Your task to perform on an android device: Show me productivity apps on the Play Store Image 0: 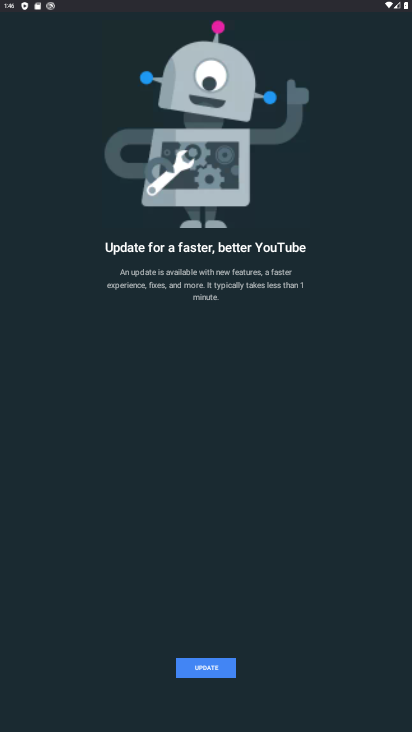
Step 0: press home button
Your task to perform on an android device: Show me productivity apps on the Play Store Image 1: 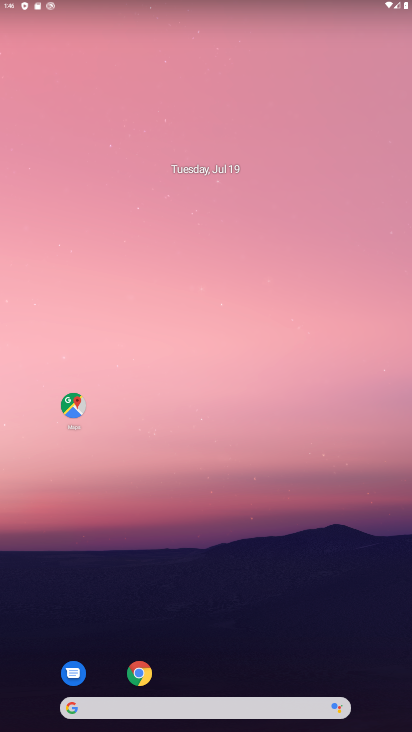
Step 1: drag from (214, 711) to (272, 187)
Your task to perform on an android device: Show me productivity apps on the Play Store Image 2: 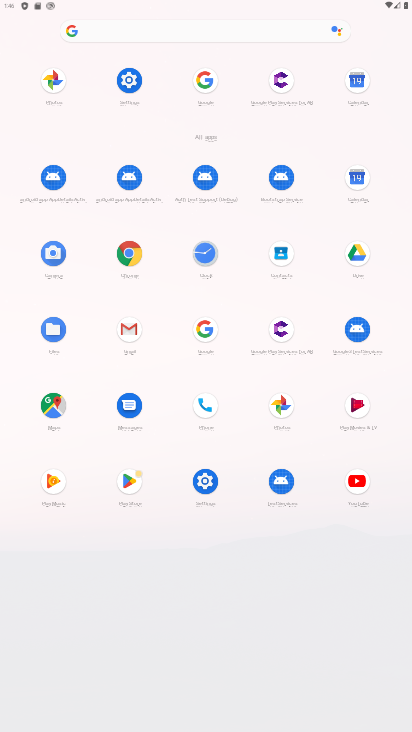
Step 2: click (132, 482)
Your task to perform on an android device: Show me productivity apps on the Play Store Image 3: 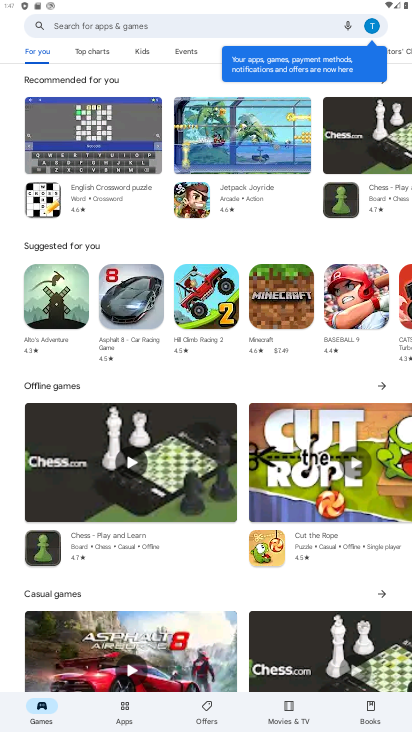
Step 3: click (124, 707)
Your task to perform on an android device: Show me productivity apps on the Play Store Image 4: 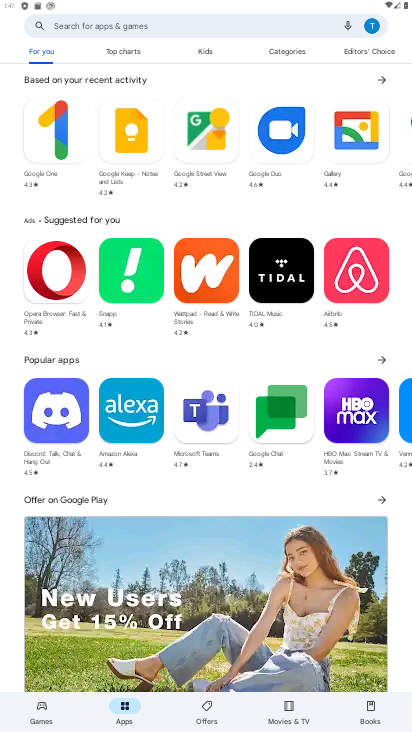
Step 4: click (285, 51)
Your task to perform on an android device: Show me productivity apps on the Play Store Image 5: 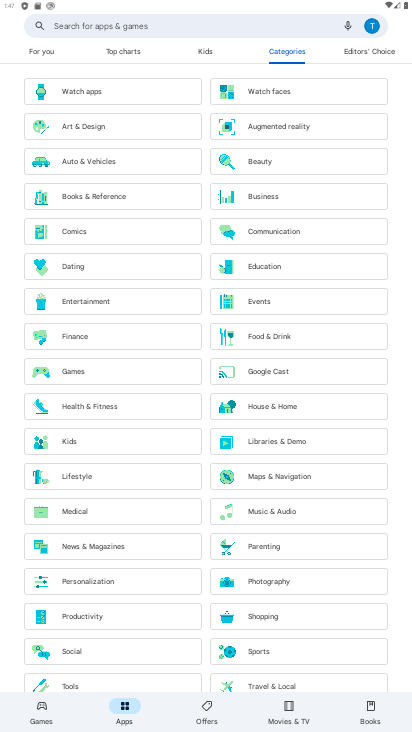
Step 5: click (85, 618)
Your task to perform on an android device: Show me productivity apps on the Play Store Image 6: 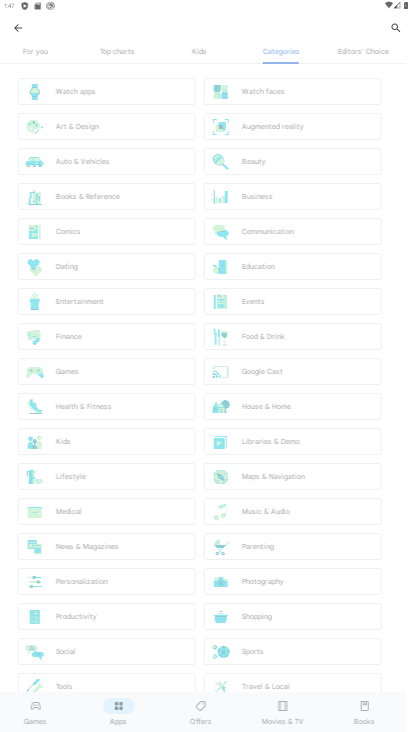
Step 6: click (78, 610)
Your task to perform on an android device: Show me productivity apps on the Play Store Image 7: 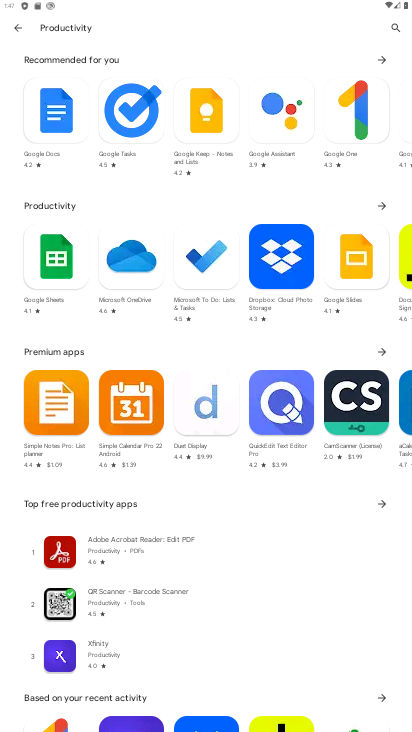
Step 7: task complete